Your task to perform on an android device: Play the last video I watched on Youtube Image 0: 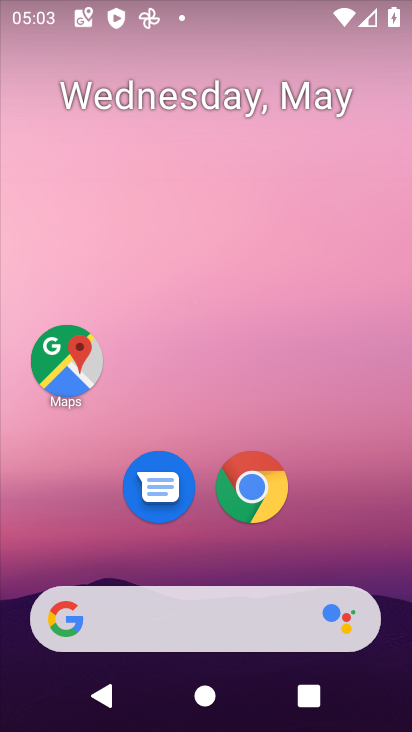
Step 0: drag from (344, 526) to (283, 49)
Your task to perform on an android device: Play the last video I watched on Youtube Image 1: 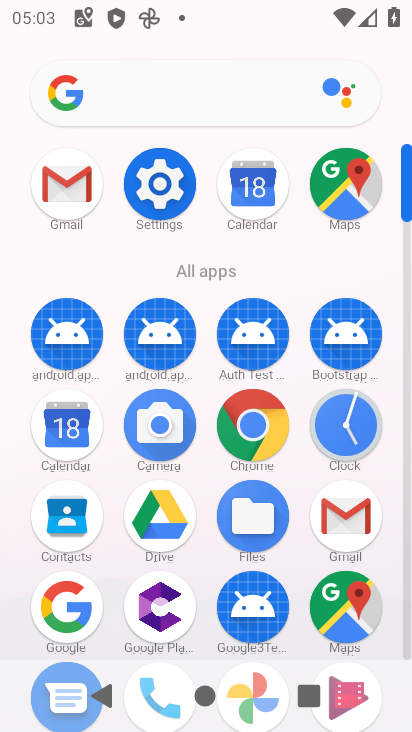
Step 1: click (406, 606)
Your task to perform on an android device: Play the last video I watched on Youtube Image 2: 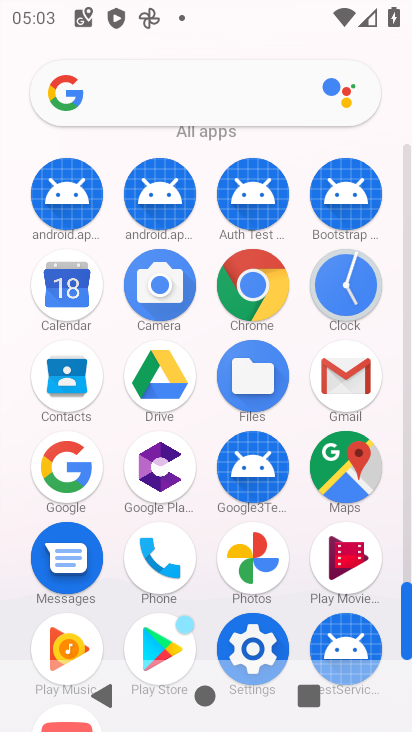
Step 2: click (333, 561)
Your task to perform on an android device: Play the last video I watched on Youtube Image 3: 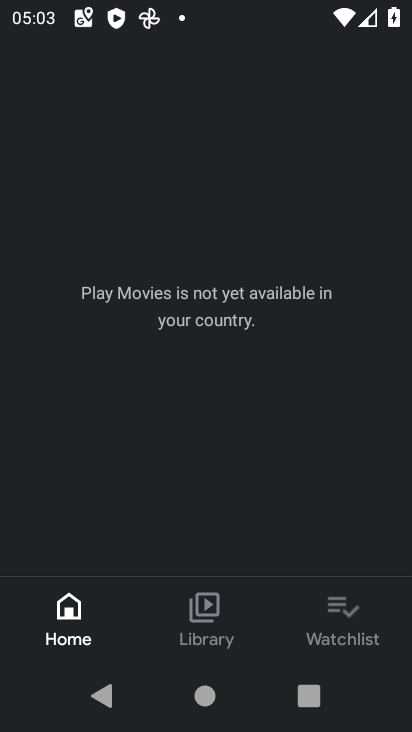
Step 3: press back button
Your task to perform on an android device: Play the last video I watched on Youtube Image 4: 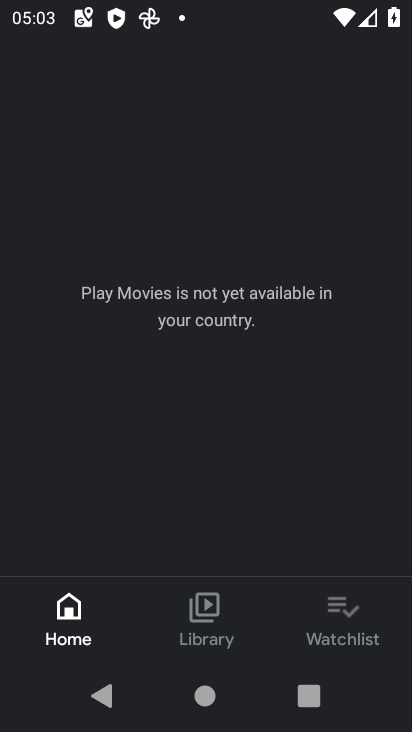
Step 4: press back button
Your task to perform on an android device: Play the last video I watched on Youtube Image 5: 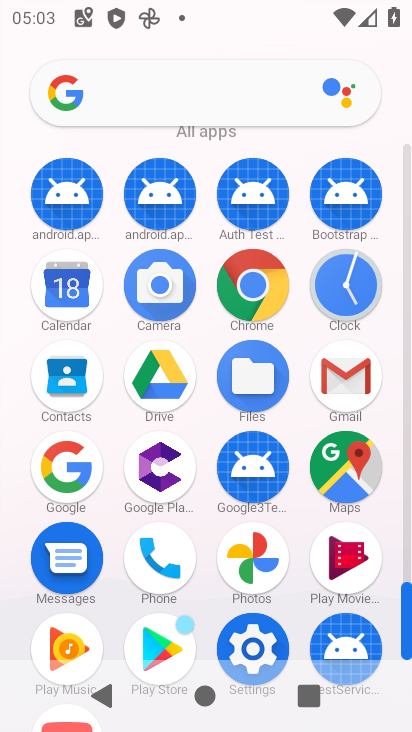
Step 5: press back button
Your task to perform on an android device: Play the last video I watched on Youtube Image 6: 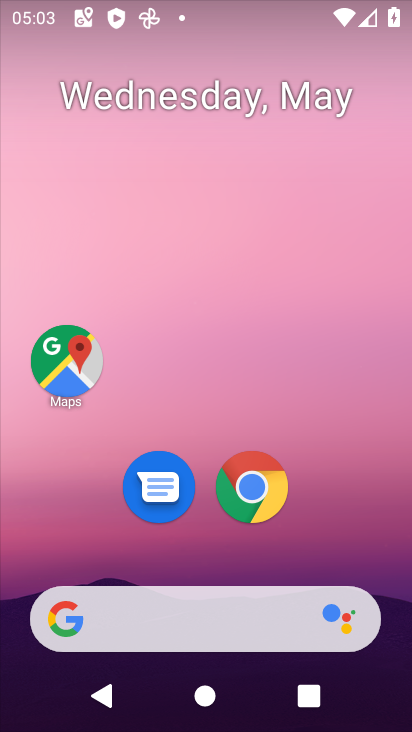
Step 6: drag from (339, 502) to (354, 94)
Your task to perform on an android device: Play the last video I watched on Youtube Image 7: 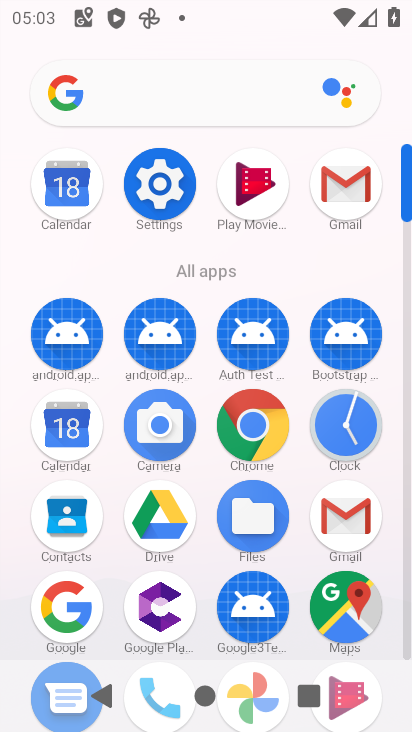
Step 7: click (402, 636)
Your task to perform on an android device: Play the last video I watched on Youtube Image 8: 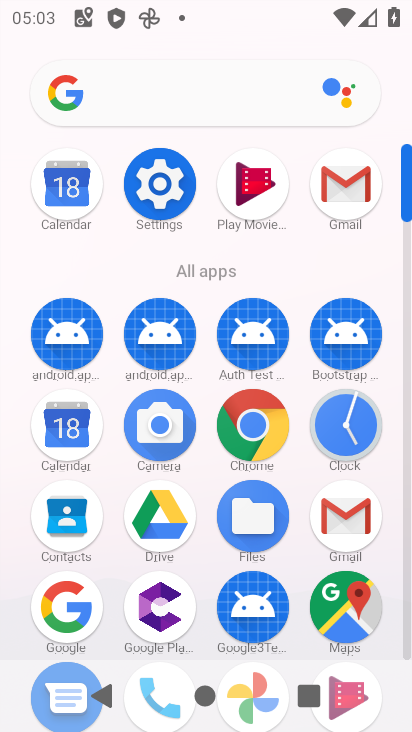
Step 8: click (402, 636)
Your task to perform on an android device: Play the last video I watched on Youtube Image 9: 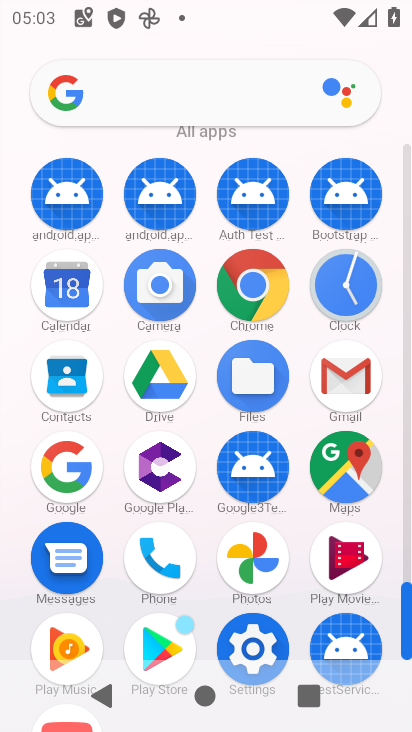
Step 9: drag from (403, 627) to (336, 682)
Your task to perform on an android device: Play the last video I watched on Youtube Image 10: 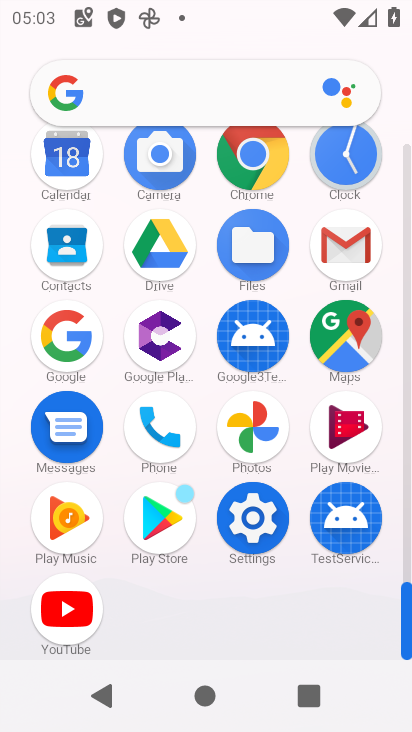
Step 10: click (81, 621)
Your task to perform on an android device: Play the last video I watched on Youtube Image 11: 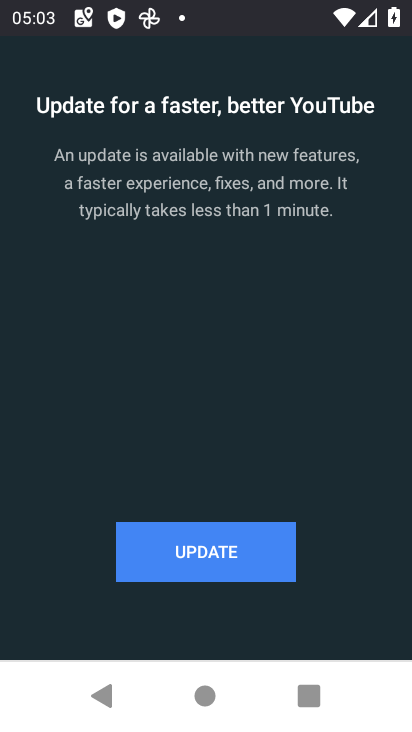
Step 11: click (221, 573)
Your task to perform on an android device: Play the last video I watched on Youtube Image 12: 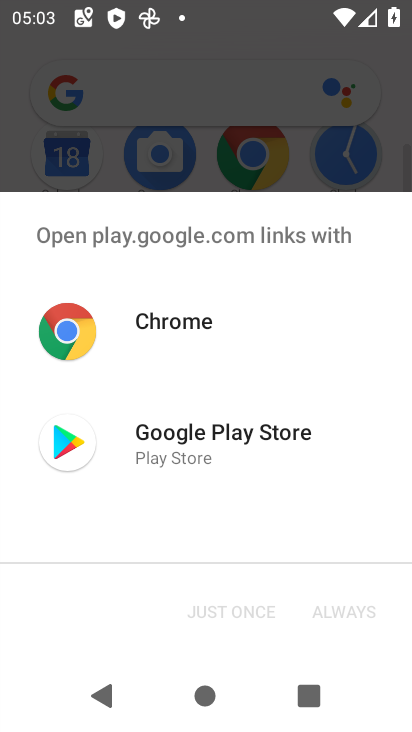
Step 12: click (206, 336)
Your task to perform on an android device: Play the last video I watched on Youtube Image 13: 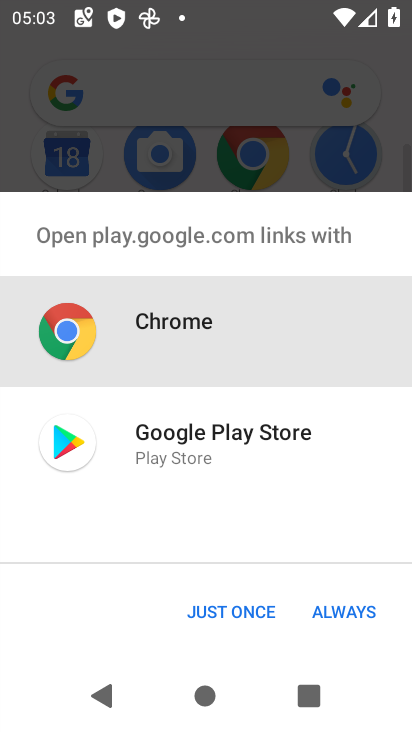
Step 13: click (213, 468)
Your task to perform on an android device: Play the last video I watched on Youtube Image 14: 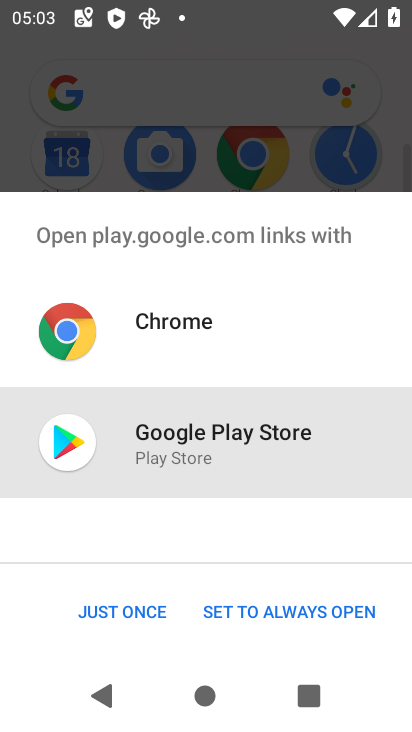
Step 14: click (213, 619)
Your task to perform on an android device: Play the last video I watched on Youtube Image 15: 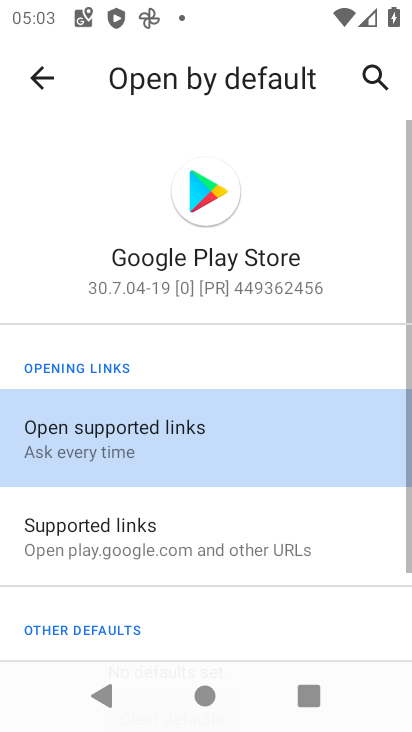
Step 15: click (32, 73)
Your task to perform on an android device: Play the last video I watched on Youtube Image 16: 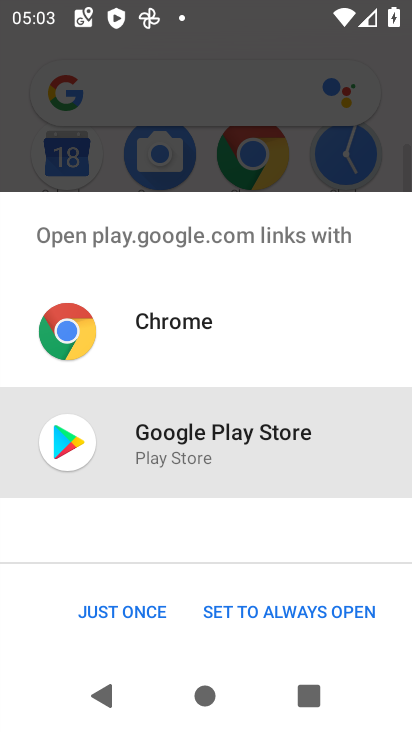
Step 16: click (144, 608)
Your task to perform on an android device: Play the last video I watched on Youtube Image 17: 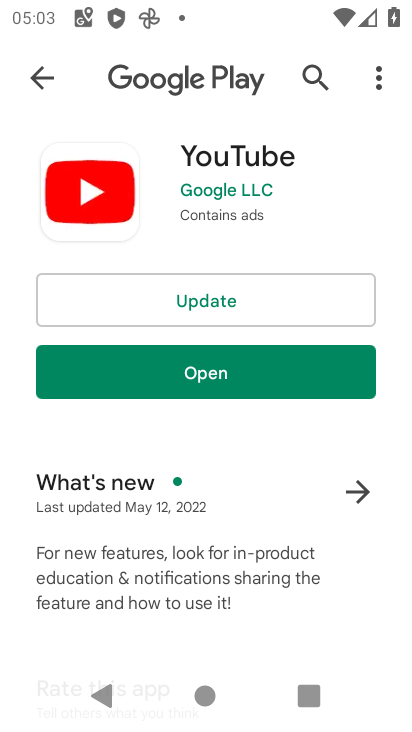
Step 17: click (256, 297)
Your task to perform on an android device: Play the last video I watched on Youtube Image 18: 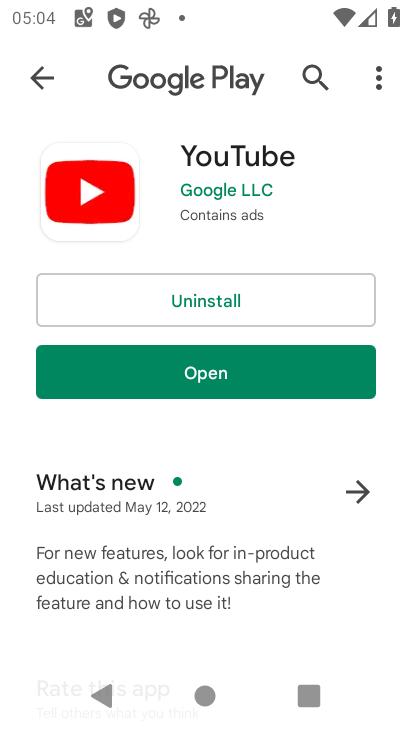
Step 18: click (257, 368)
Your task to perform on an android device: Play the last video I watched on Youtube Image 19: 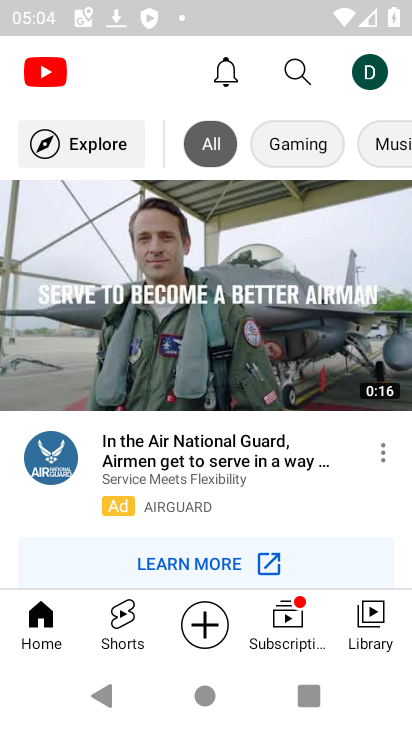
Step 19: click (368, 631)
Your task to perform on an android device: Play the last video I watched on Youtube Image 20: 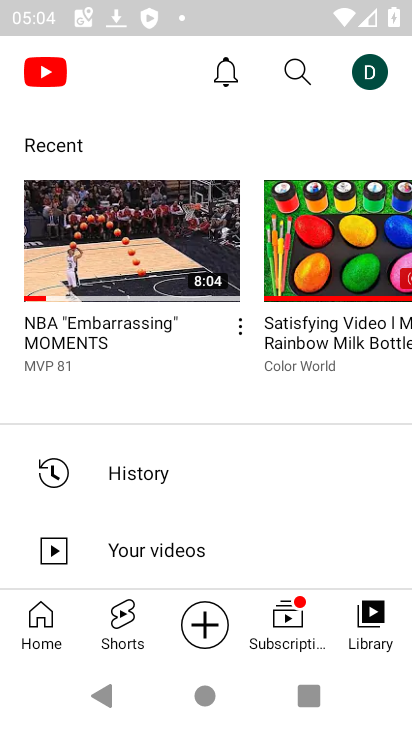
Step 20: task complete